Your task to perform on an android device: open a new tab in the chrome app Image 0: 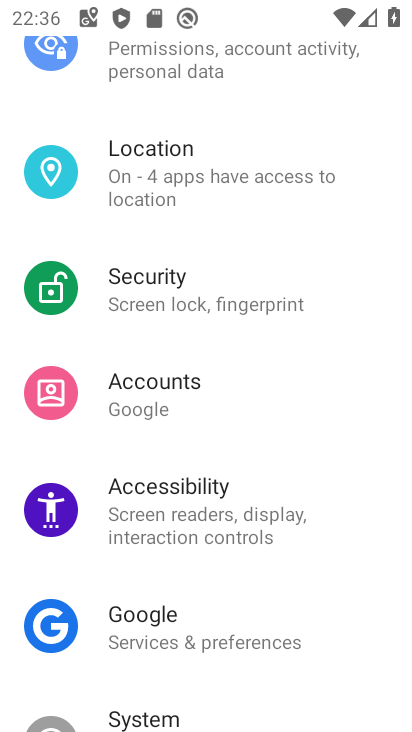
Step 0: press home button
Your task to perform on an android device: open a new tab in the chrome app Image 1: 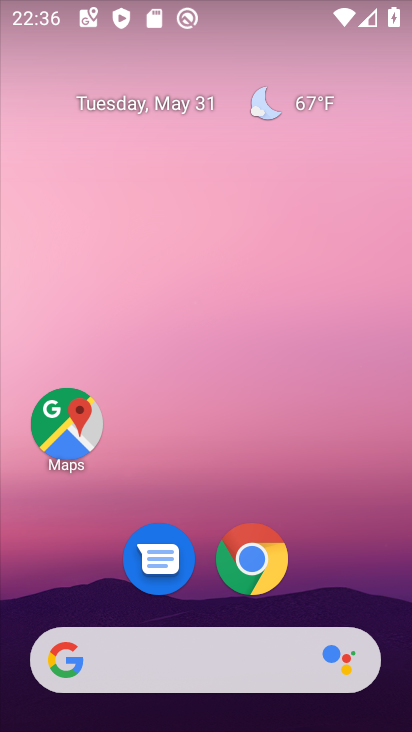
Step 1: click (256, 566)
Your task to perform on an android device: open a new tab in the chrome app Image 2: 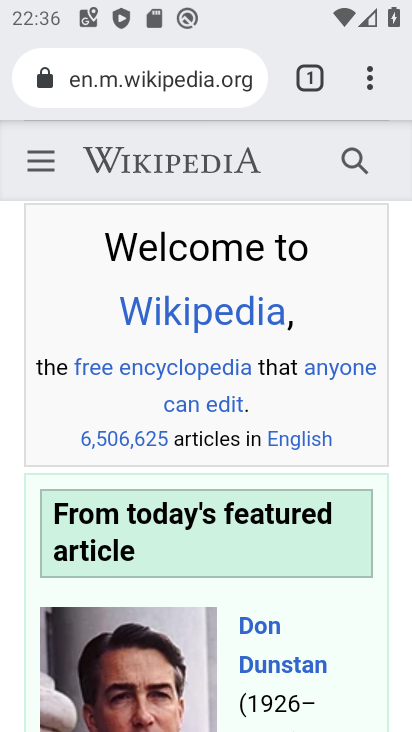
Step 2: click (312, 75)
Your task to perform on an android device: open a new tab in the chrome app Image 3: 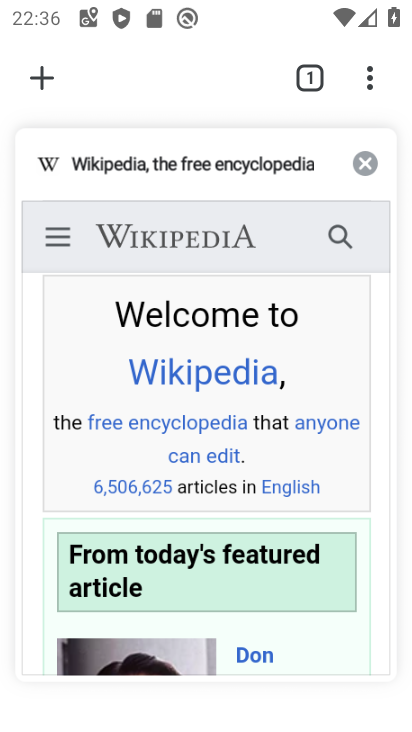
Step 3: click (48, 76)
Your task to perform on an android device: open a new tab in the chrome app Image 4: 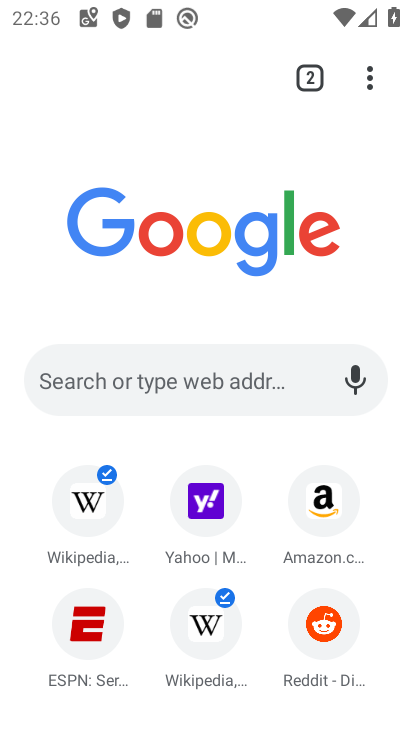
Step 4: task complete